Your task to perform on an android device: Toggle the flashlight Image 0: 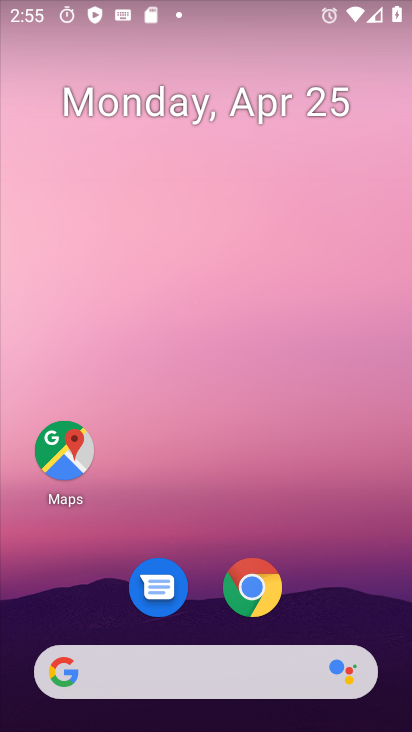
Step 0: drag from (260, 16) to (262, 500)
Your task to perform on an android device: Toggle the flashlight Image 1: 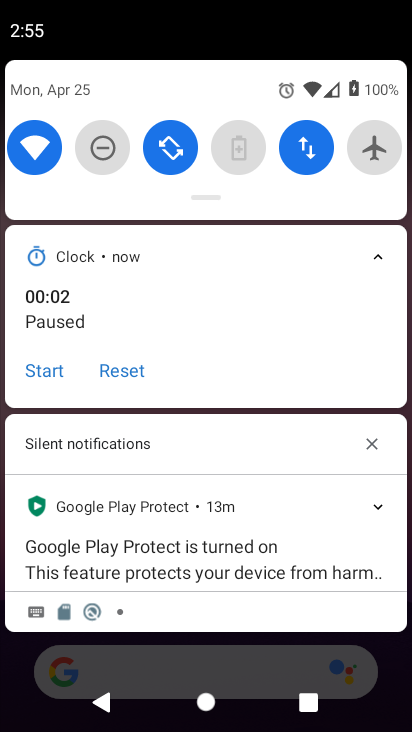
Step 1: task complete